Your task to perform on an android device: open the mobile data screen to see how much data has been used Image 0: 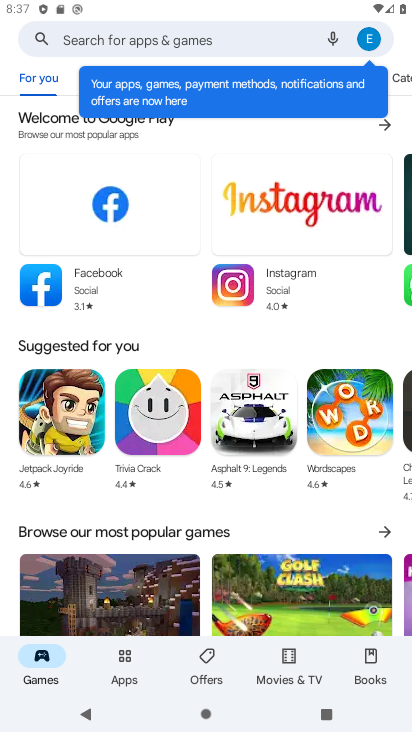
Step 0: press home button
Your task to perform on an android device: open the mobile data screen to see how much data has been used Image 1: 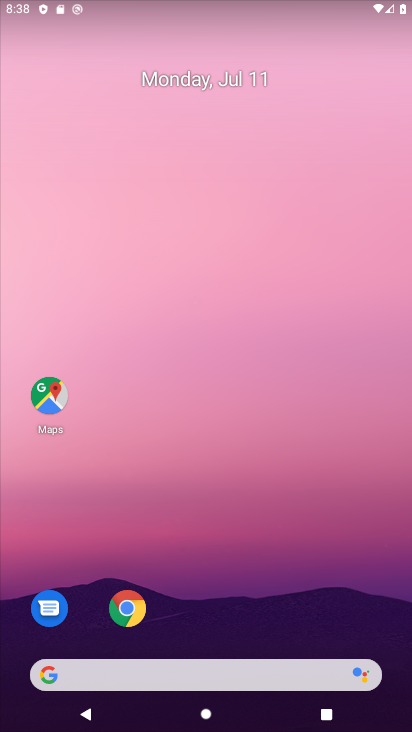
Step 1: click (171, 49)
Your task to perform on an android device: open the mobile data screen to see how much data has been used Image 2: 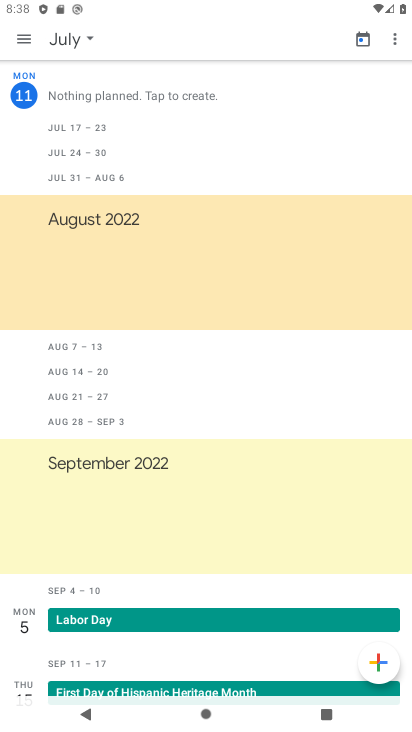
Step 2: press home button
Your task to perform on an android device: open the mobile data screen to see how much data has been used Image 3: 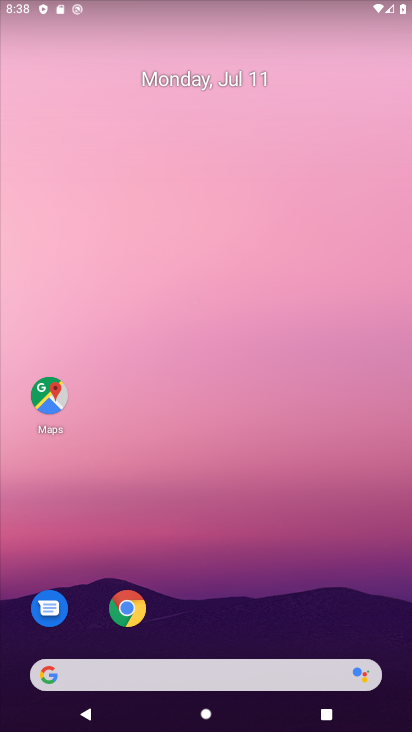
Step 3: drag from (185, 544) to (177, 240)
Your task to perform on an android device: open the mobile data screen to see how much data has been used Image 4: 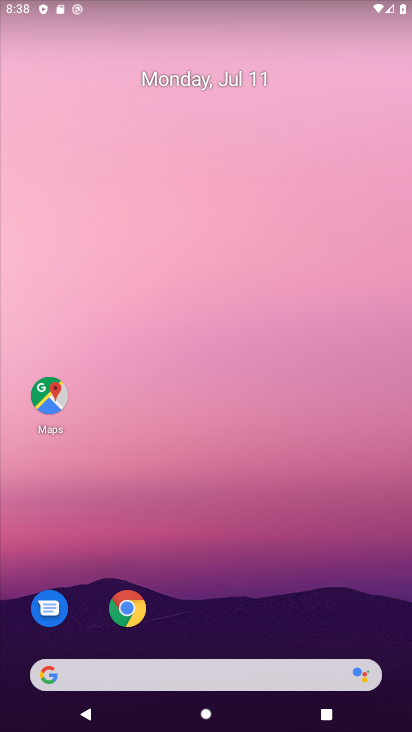
Step 4: click (129, 202)
Your task to perform on an android device: open the mobile data screen to see how much data has been used Image 5: 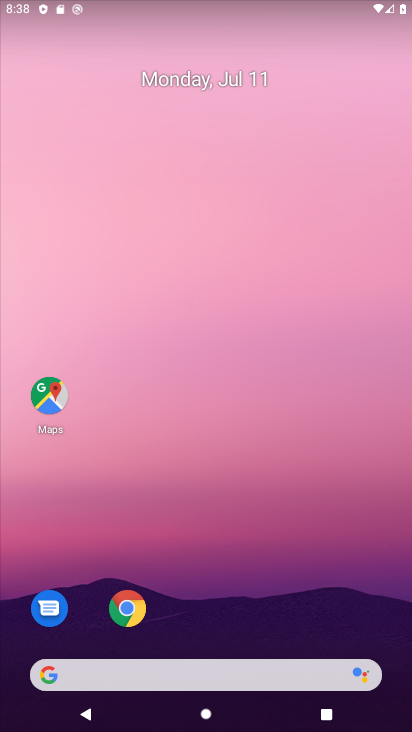
Step 5: drag from (172, 516) to (213, 41)
Your task to perform on an android device: open the mobile data screen to see how much data has been used Image 6: 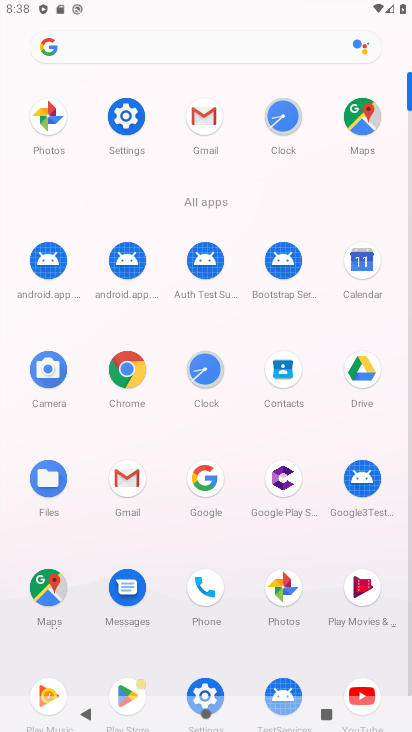
Step 6: click (126, 126)
Your task to perform on an android device: open the mobile data screen to see how much data has been used Image 7: 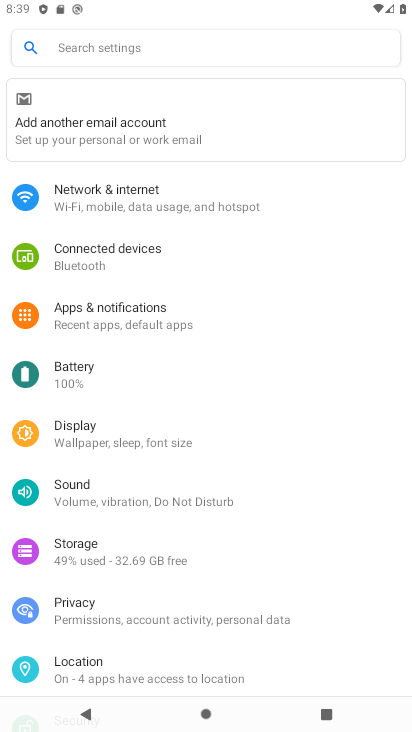
Step 7: click (72, 211)
Your task to perform on an android device: open the mobile data screen to see how much data has been used Image 8: 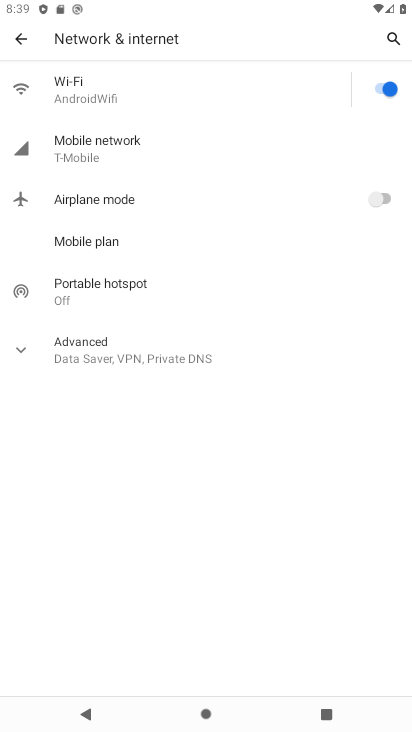
Step 8: click (148, 157)
Your task to perform on an android device: open the mobile data screen to see how much data has been used Image 9: 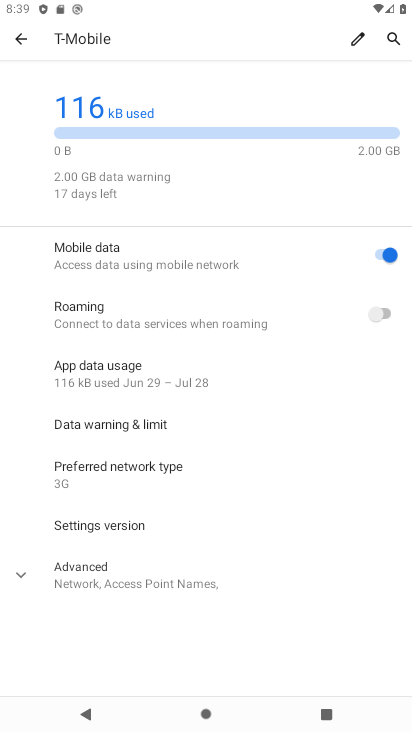
Step 9: task complete